Your task to perform on an android device: Go to battery settings Image 0: 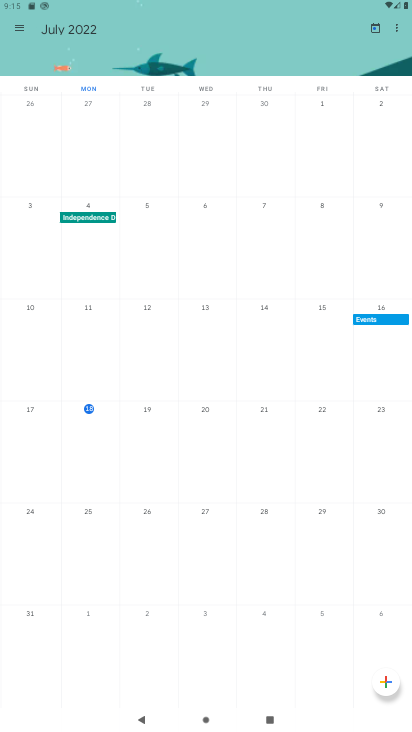
Step 0: press home button
Your task to perform on an android device: Go to battery settings Image 1: 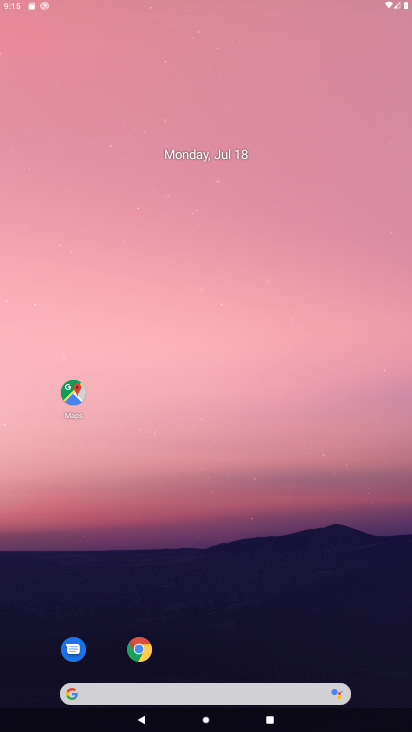
Step 1: drag from (324, 553) to (403, 23)
Your task to perform on an android device: Go to battery settings Image 2: 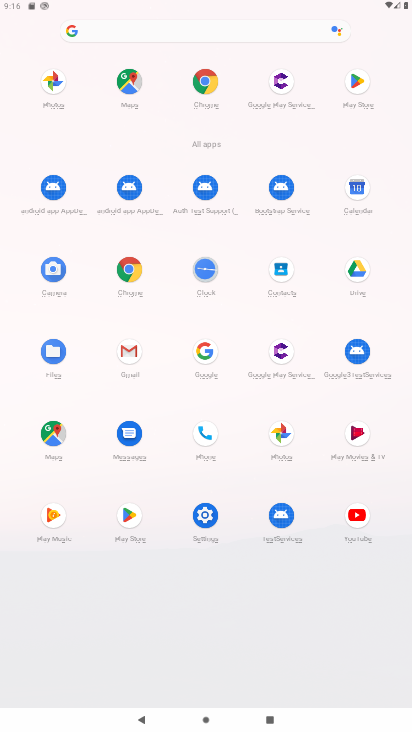
Step 2: click (205, 531)
Your task to perform on an android device: Go to battery settings Image 3: 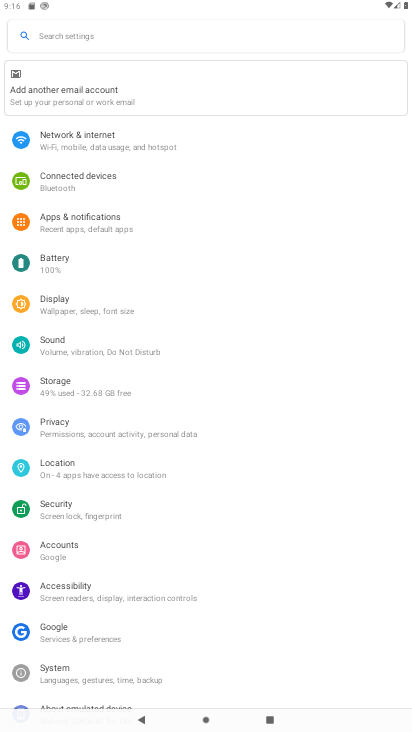
Step 3: click (75, 277)
Your task to perform on an android device: Go to battery settings Image 4: 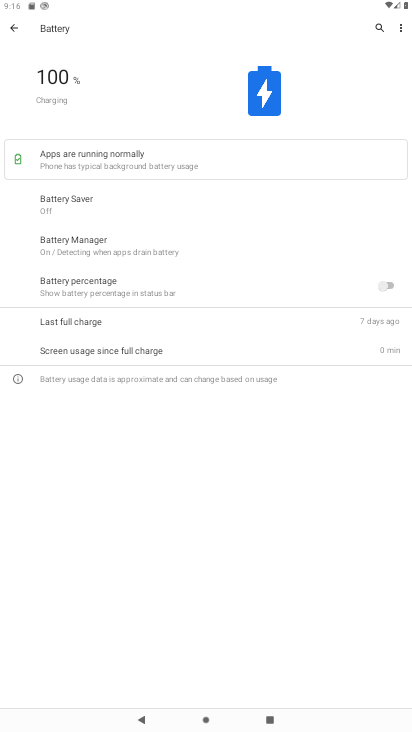
Step 4: task complete